Your task to perform on an android device: Empty the shopping cart on bestbuy. Add "macbook" to the cart on bestbuy Image 0: 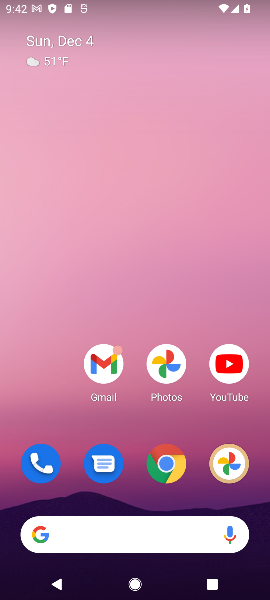
Step 0: click (130, 556)
Your task to perform on an android device: Empty the shopping cart on bestbuy. Add "macbook" to the cart on bestbuy Image 1: 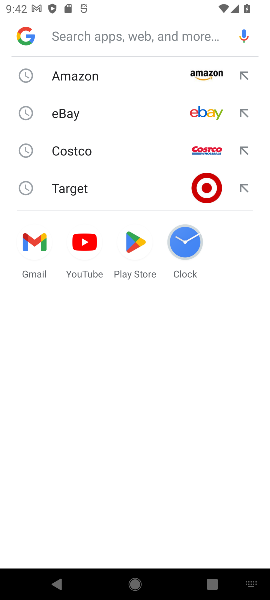
Step 1: click (138, 545)
Your task to perform on an android device: Empty the shopping cart on bestbuy. Add "macbook" to the cart on bestbuy Image 2: 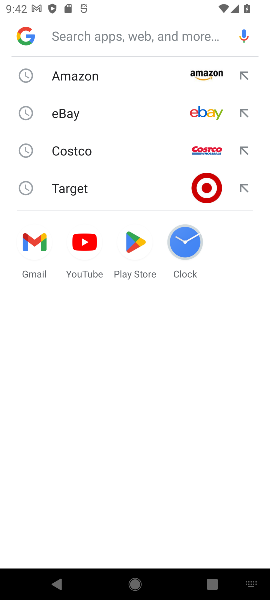
Step 2: type "bestbuy"
Your task to perform on an android device: Empty the shopping cart on bestbuy. Add "macbook" to the cart on bestbuy Image 3: 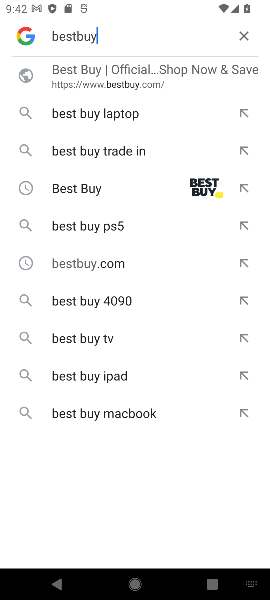
Step 3: click (71, 89)
Your task to perform on an android device: Empty the shopping cart on bestbuy. Add "macbook" to the cart on bestbuy Image 4: 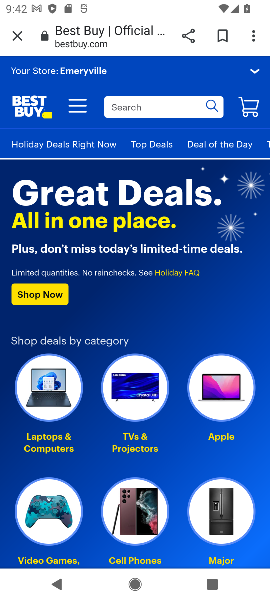
Step 4: click (158, 102)
Your task to perform on an android device: Empty the shopping cart on bestbuy. Add "macbook" to the cart on bestbuy Image 5: 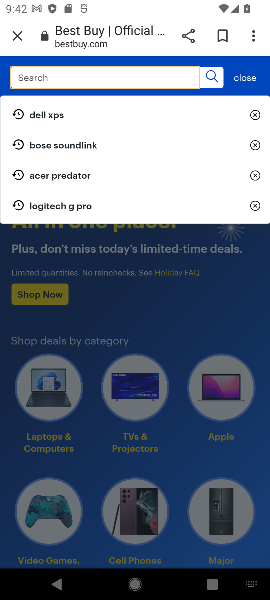
Step 5: type "macbook"
Your task to perform on an android device: Empty the shopping cart on bestbuy. Add "macbook" to the cart on bestbuy Image 6: 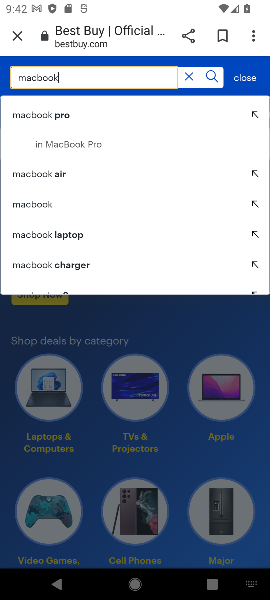
Step 6: click (12, 108)
Your task to perform on an android device: Empty the shopping cart on bestbuy. Add "macbook" to the cart on bestbuy Image 7: 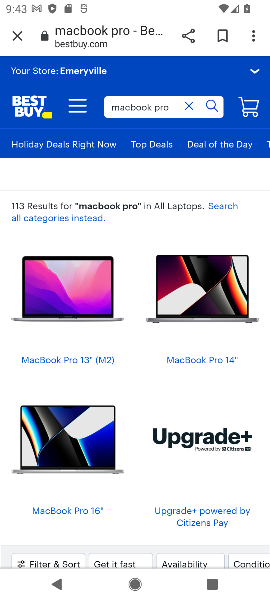
Step 7: click (89, 320)
Your task to perform on an android device: Empty the shopping cart on bestbuy. Add "macbook" to the cart on bestbuy Image 8: 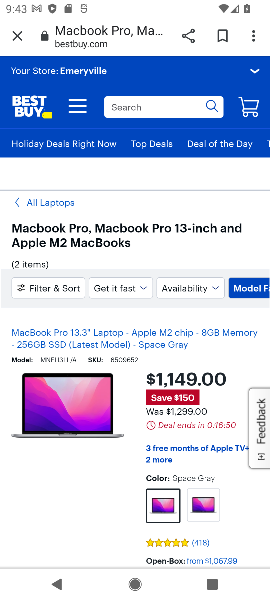
Step 8: task complete